Your task to perform on an android device: Go to accessibility settings Image 0: 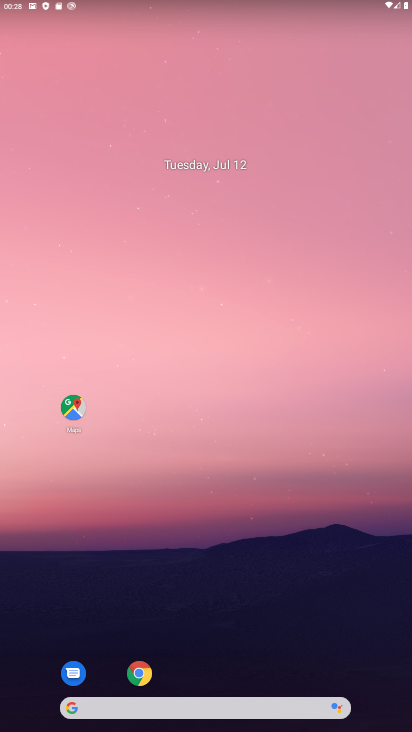
Step 0: press home button
Your task to perform on an android device: Go to accessibility settings Image 1: 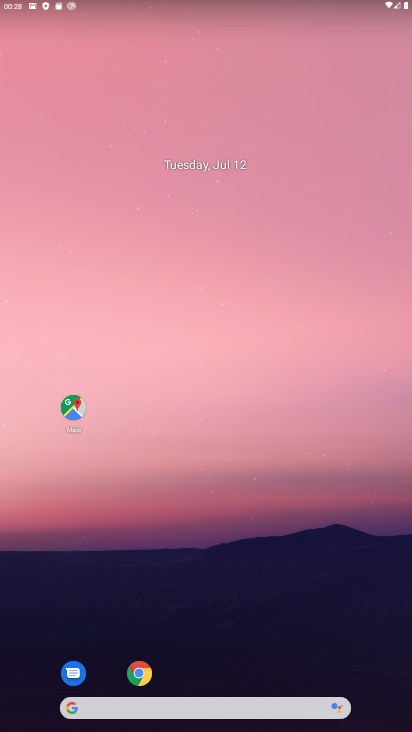
Step 1: drag from (229, 651) to (227, 119)
Your task to perform on an android device: Go to accessibility settings Image 2: 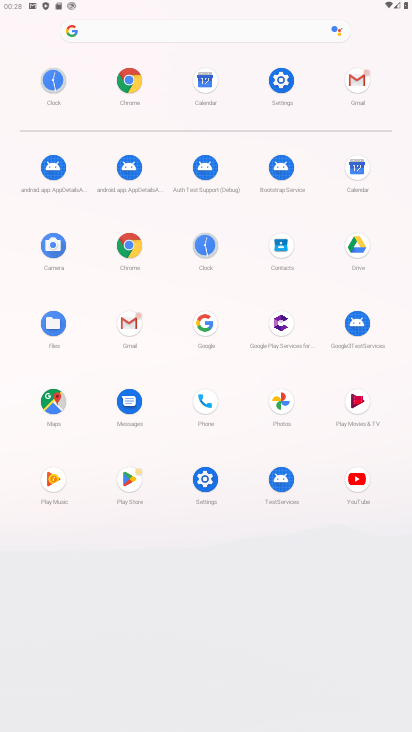
Step 2: click (277, 82)
Your task to perform on an android device: Go to accessibility settings Image 3: 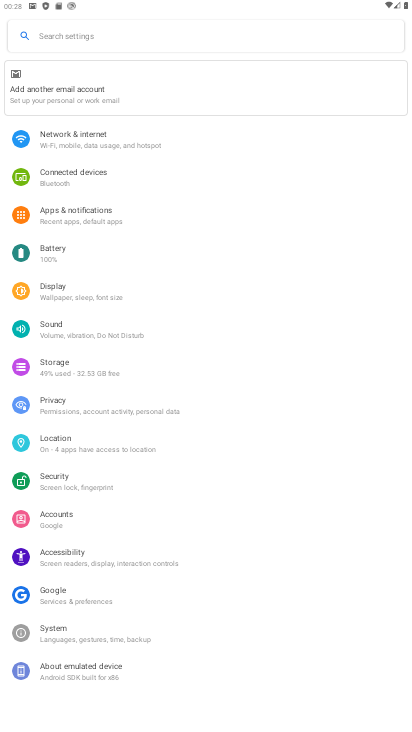
Step 3: click (81, 552)
Your task to perform on an android device: Go to accessibility settings Image 4: 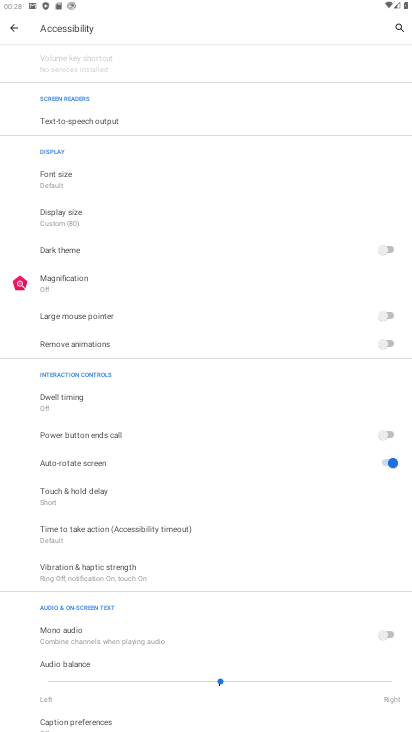
Step 4: task complete